Your task to perform on an android device: Show me recent news Image 0: 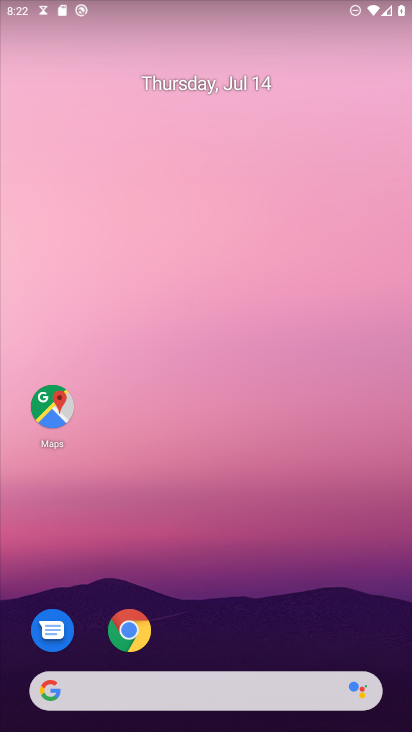
Step 0: click (232, 689)
Your task to perform on an android device: Show me recent news Image 1: 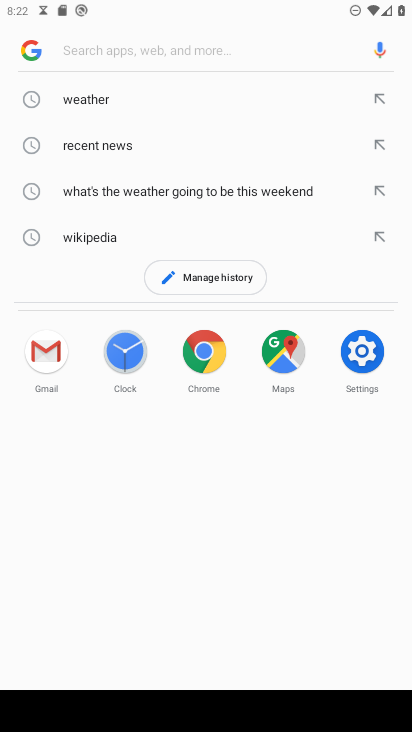
Step 1: type "recent news"
Your task to perform on an android device: Show me recent news Image 2: 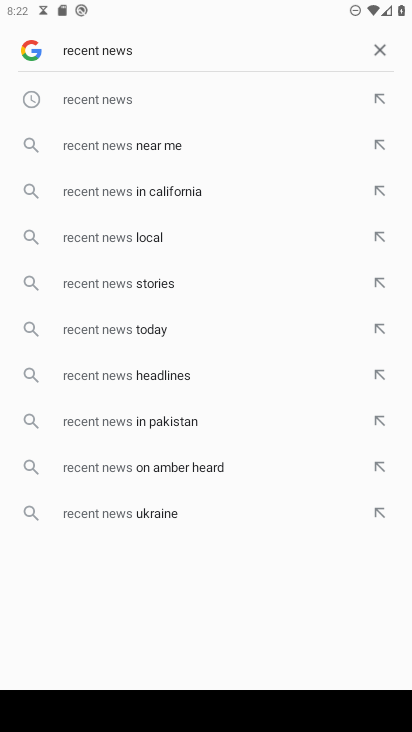
Step 2: click (198, 90)
Your task to perform on an android device: Show me recent news Image 3: 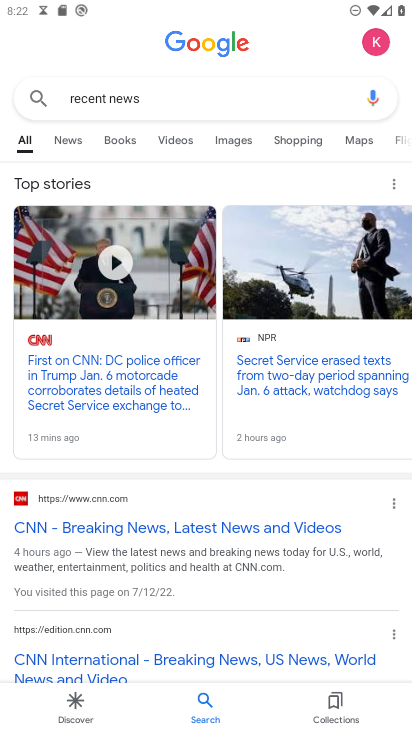
Step 3: click (74, 133)
Your task to perform on an android device: Show me recent news Image 4: 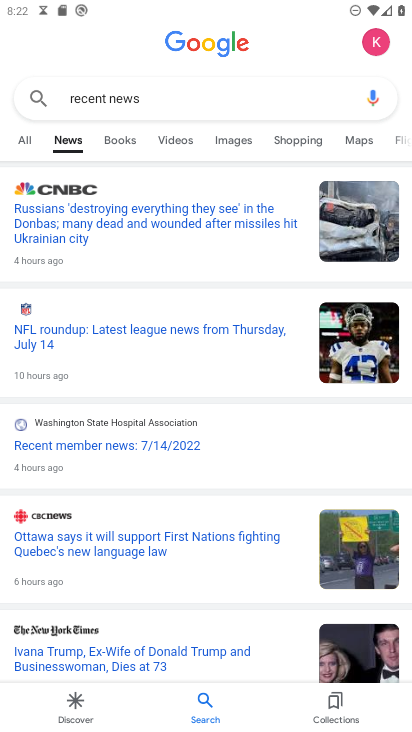
Step 4: task complete